Your task to perform on an android device: toggle pop-ups in chrome Image 0: 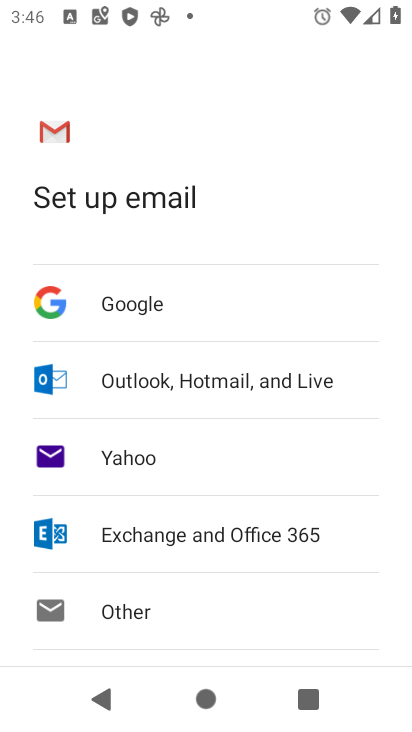
Step 0: press home button
Your task to perform on an android device: toggle pop-ups in chrome Image 1: 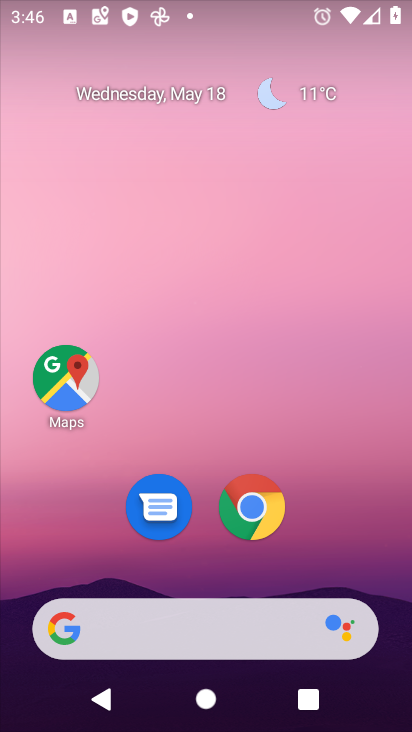
Step 1: click (253, 511)
Your task to perform on an android device: toggle pop-ups in chrome Image 2: 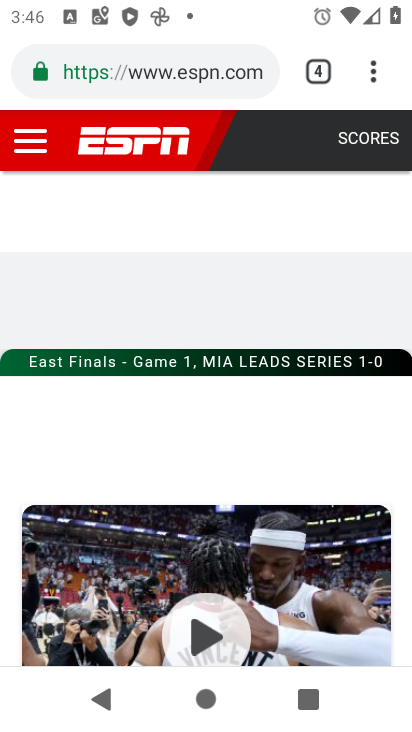
Step 2: click (372, 76)
Your task to perform on an android device: toggle pop-ups in chrome Image 3: 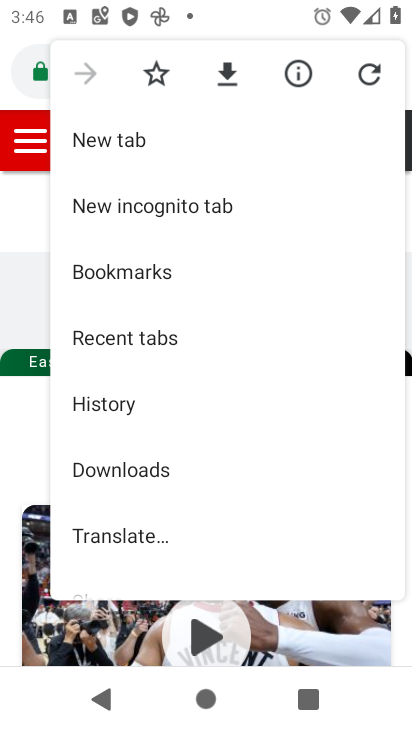
Step 3: drag from (220, 523) to (234, 147)
Your task to perform on an android device: toggle pop-ups in chrome Image 4: 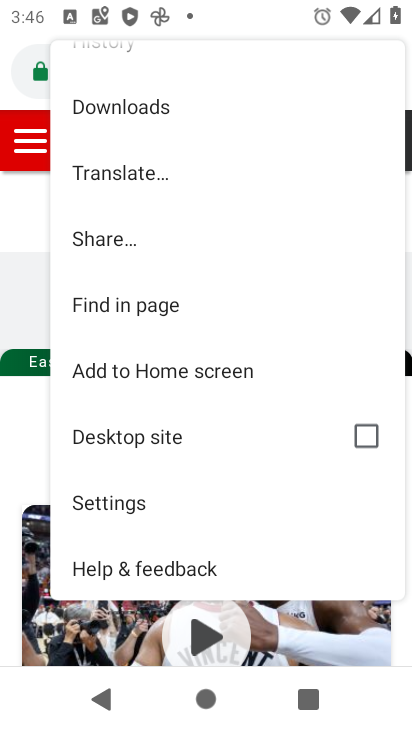
Step 4: click (115, 501)
Your task to perform on an android device: toggle pop-ups in chrome Image 5: 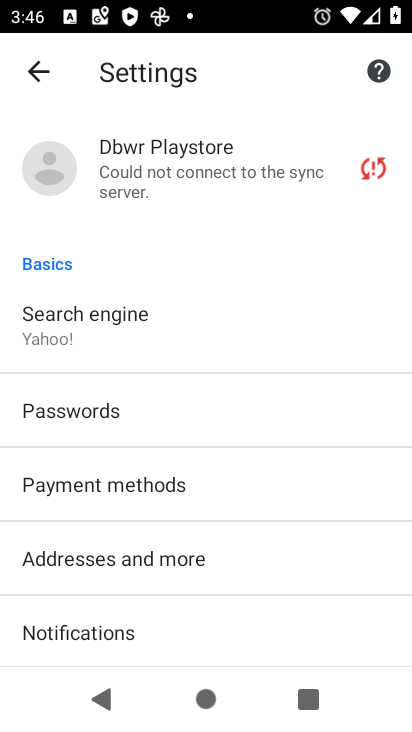
Step 5: drag from (238, 599) to (235, 292)
Your task to perform on an android device: toggle pop-ups in chrome Image 6: 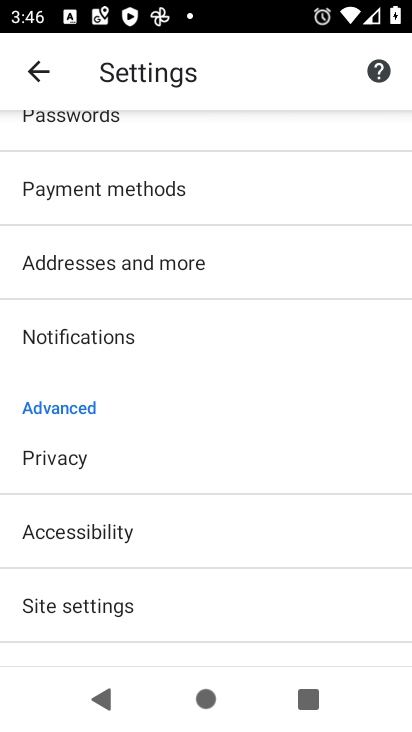
Step 6: drag from (198, 597) to (222, 289)
Your task to perform on an android device: toggle pop-ups in chrome Image 7: 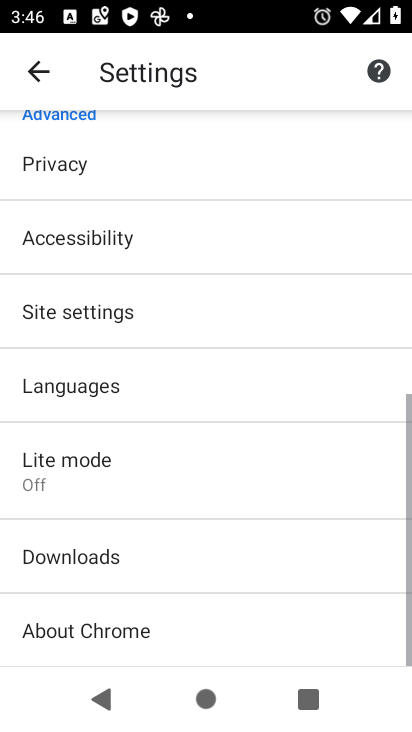
Step 7: click (68, 314)
Your task to perform on an android device: toggle pop-ups in chrome Image 8: 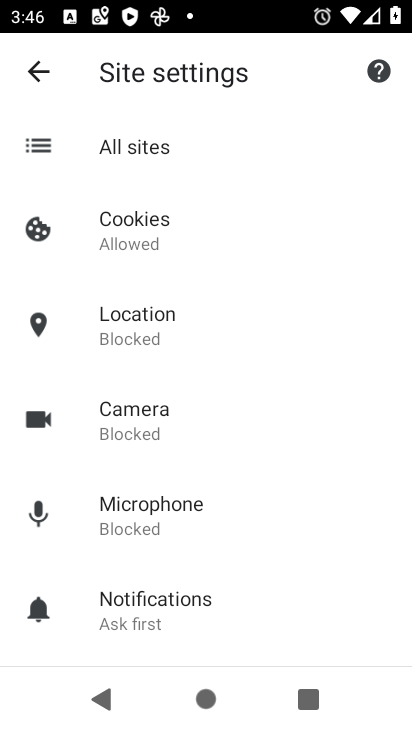
Step 8: drag from (231, 617) to (206, 157)
Your task to perform on an android device: toggle pop-ups in chrome Image 9: 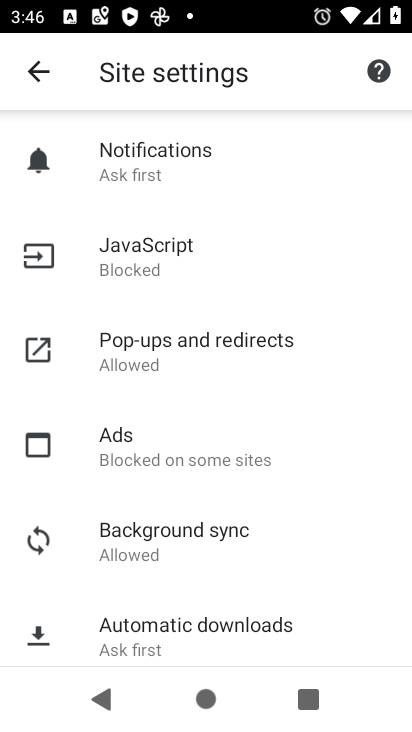
Step 9: click (137, 356)
Your task to perform on an android device: toggle pop-ups in chrome Image 10: 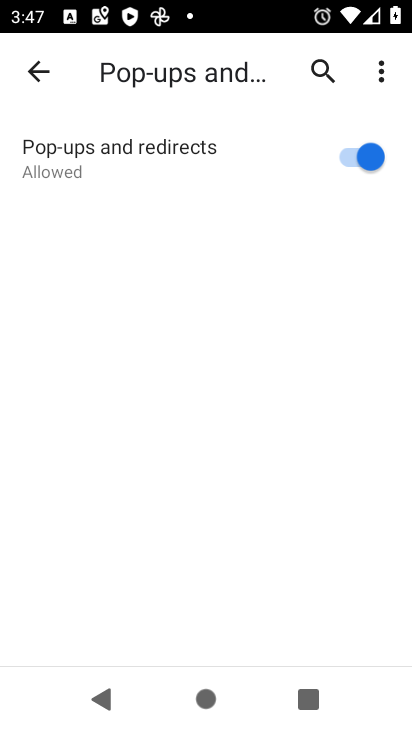
Step 10: click (346, 153)
Your task to perform on an android device: toggle pop-ups in chrome Image 11: 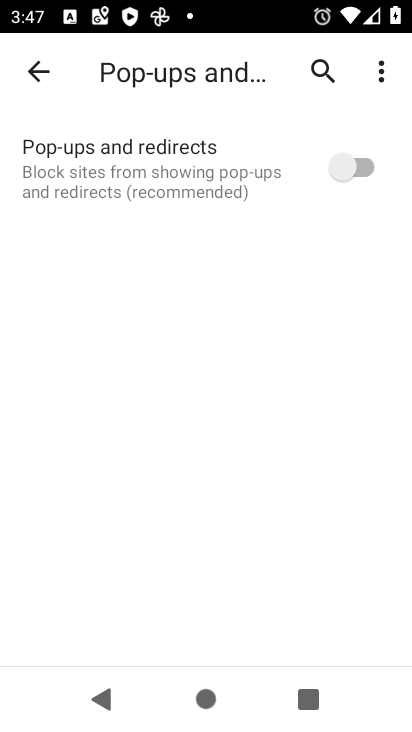
Step 11: task complete